Your task to perform on an android device: Go to location settings Image 0: 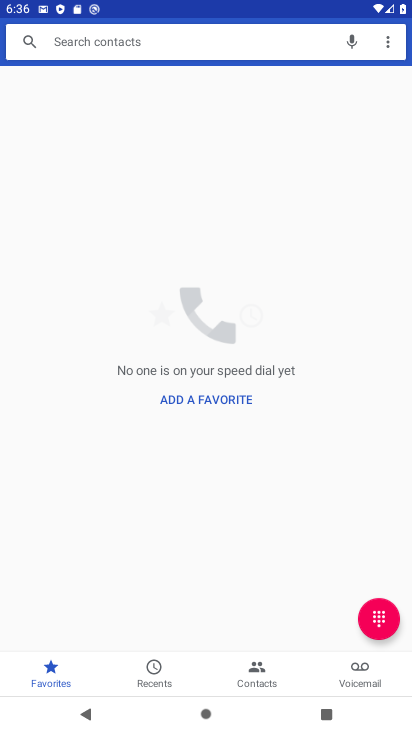
Step 0: press home button
Your task to perform on an android device: Go to location settings Image 1: 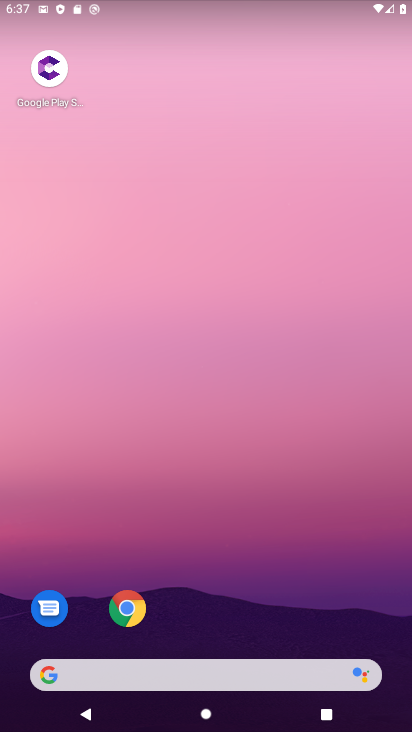
Step 1: drag from (236, 525) to (305, 55)
Your task to perform on an android device: Go to location settings Image 2: 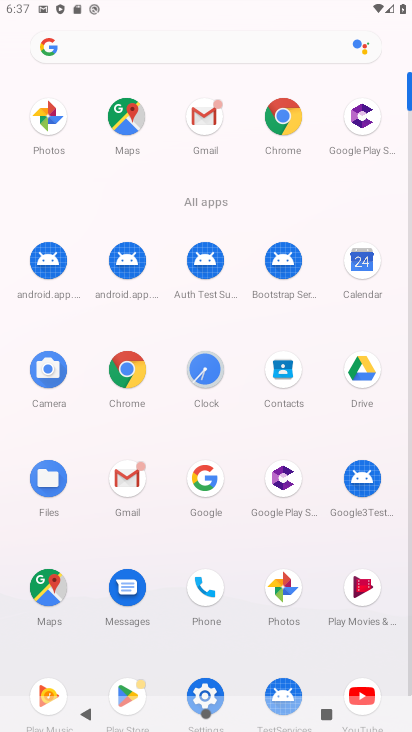
Step 2: click (210, 693)
Your task to perform on an android device: Go to location settings Image 3: 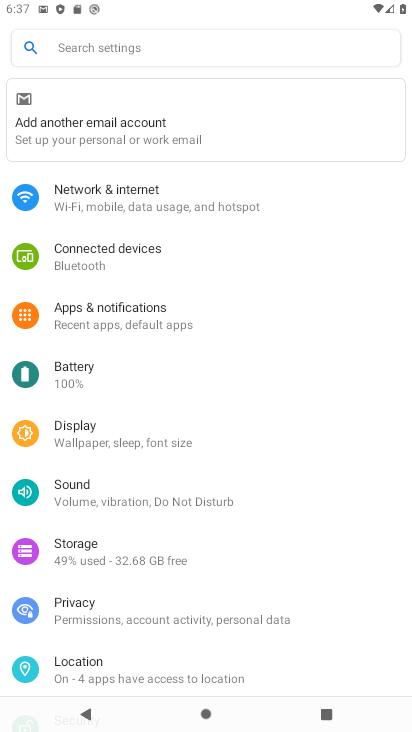
Step 3: click (86, 665)
Your task to perform on an android device: Go to location settings Image 4: 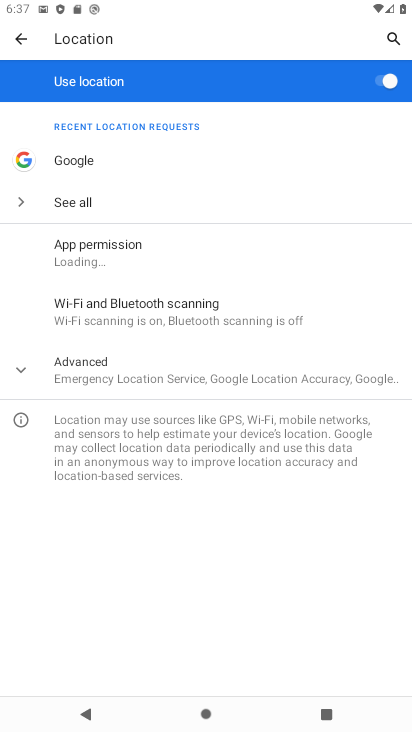
Step 4: task complete